Your task to perform on an android device: Go to Yahoo.com Image 0: 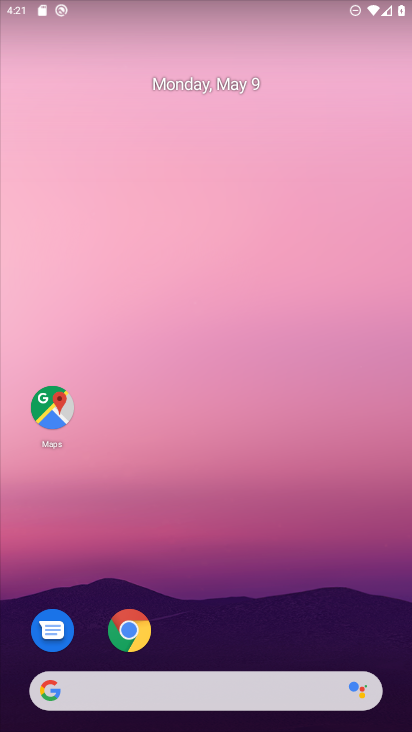
Step 0: drag from (233, 720) to (193, 216)
Your task to perform on an android device: Go to Yahoo.com Image 1: 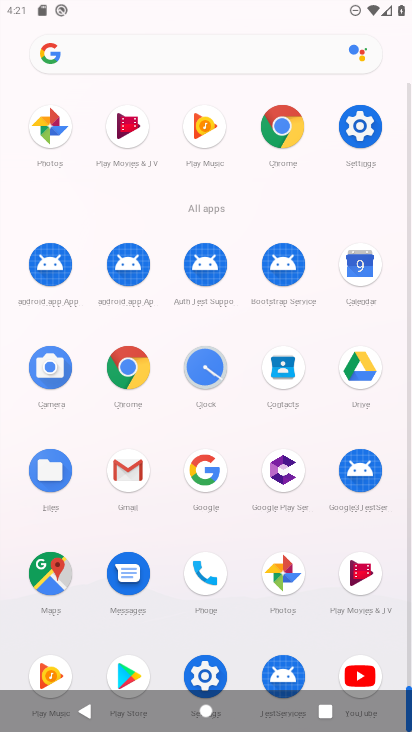
Step 1: drag from (254, 459) to (221, 177)
Your task to perform on an android device: Go to Yahoo.com Image 2: 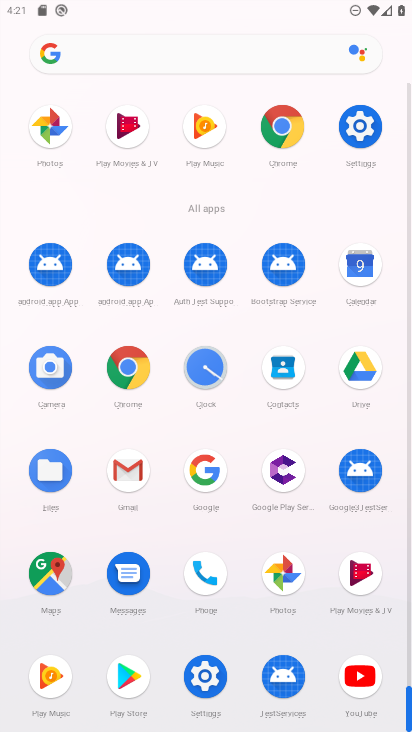
Step 2: click (283, 115)
Your task to perform on an android device: Go to Yahoo.com Image 3: 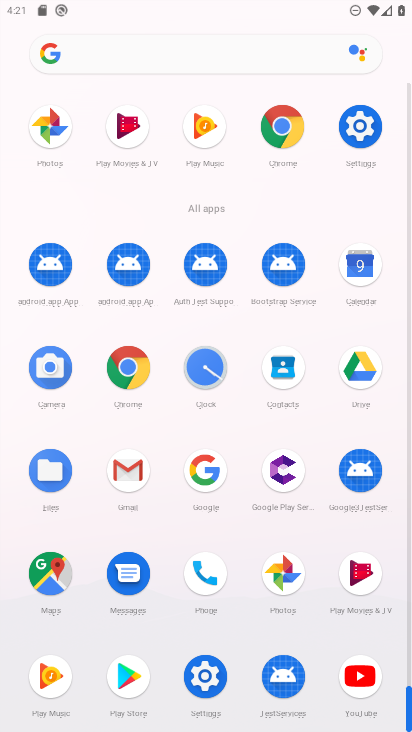
Step 3: click (283, 115)
Your task to perform on an android device: Go to Yahoo.com Image 4: 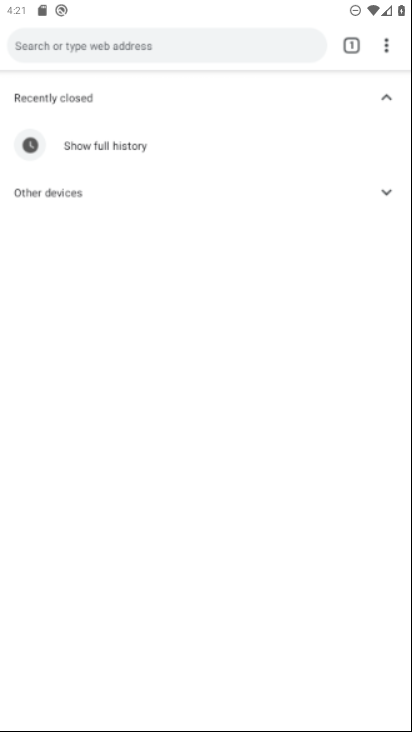
Step 4: click (282, 136)
Your task to perform on an android device: Go to Yahoo.com Image 5: 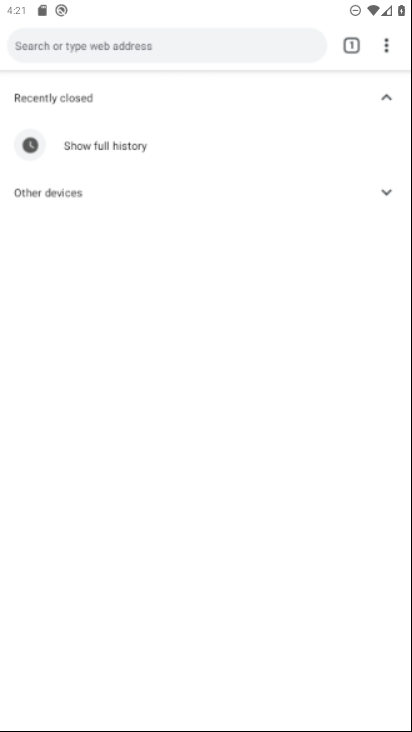
Step 5: click (282, 136)
Your task to perform on an android device: Go to Yahoo.com Image 6: 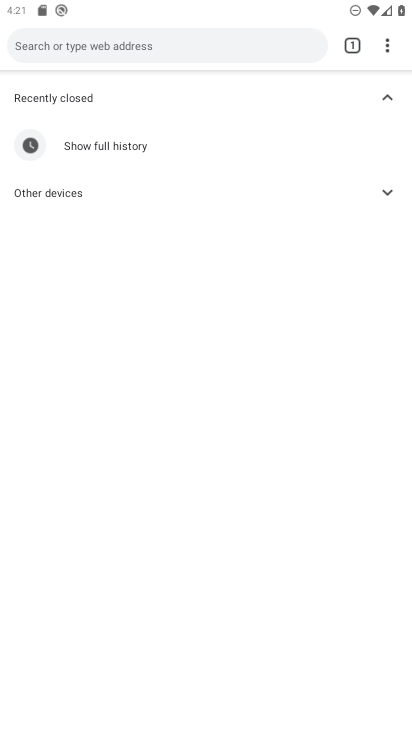
Step 6: press back button
Your task to perform on an android device: Go to Yahoo.com Image 7: 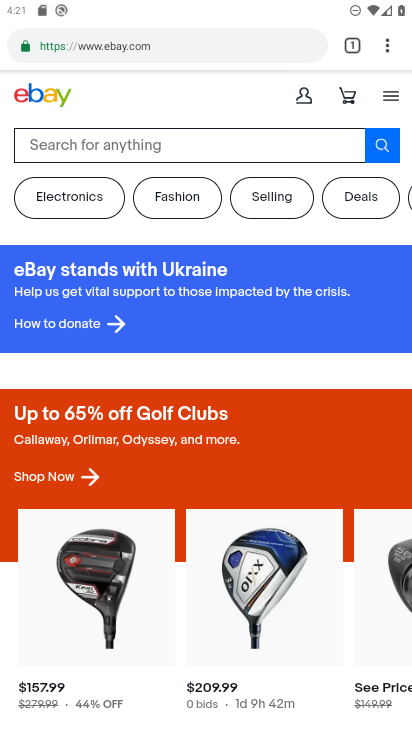
Step 7: drag from (386, 43) to (227, 91)
Your task to perform on an android device: Go to Yahoo.com Image 8: 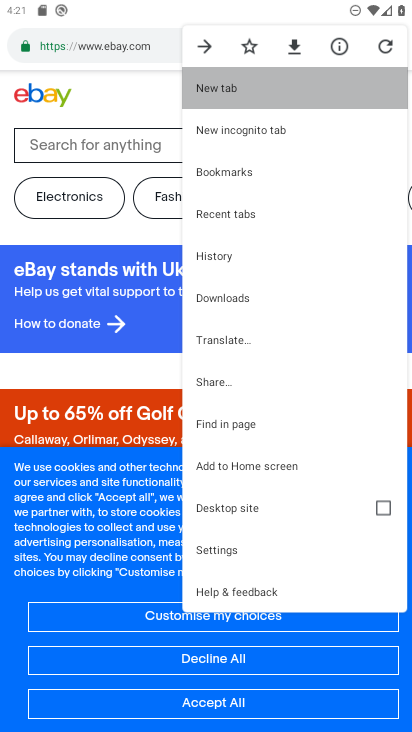
Step 8: click (227, 91)
Your task to perform on an android device: Go to Yahoo.com Image 9: 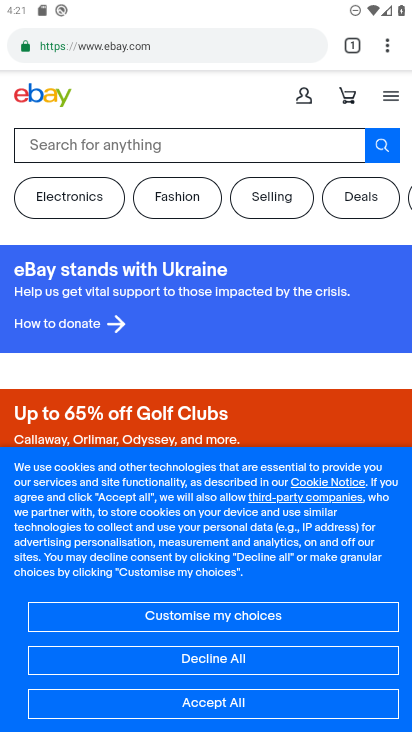
Step 9: click (227, 91)
Your task to perform on an android device: Go to Yahoo.com Image 10: 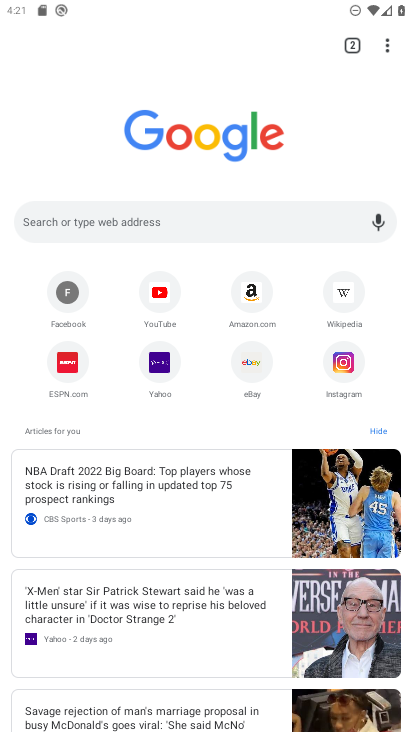
Step 10: click (162, 373)
Your task to perform on an android device: Go to Yahoo.com Image 11: 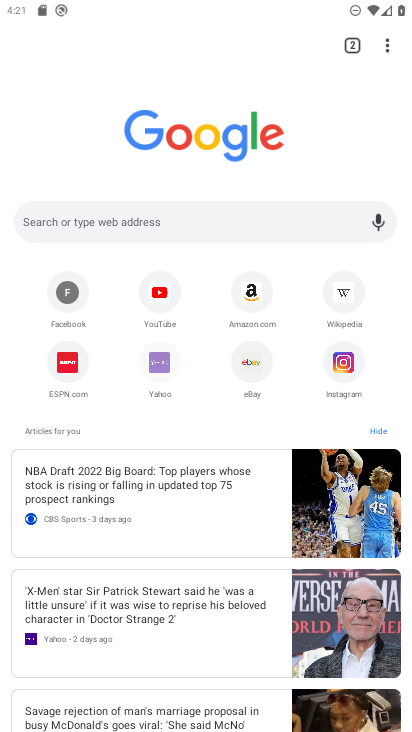
Step 11: click (162, 373)
Your task to perform on an android device: Go to Yahoo.com Image 12: 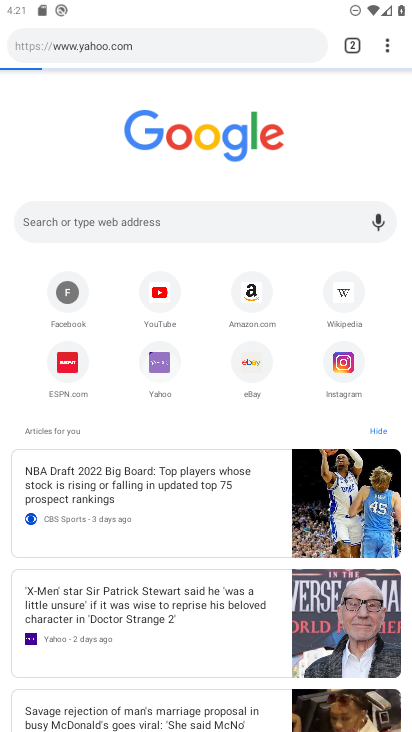
Step 12: click (162, 372)
Your task to perform on an android device: Go to Yahoo.com Image 13: 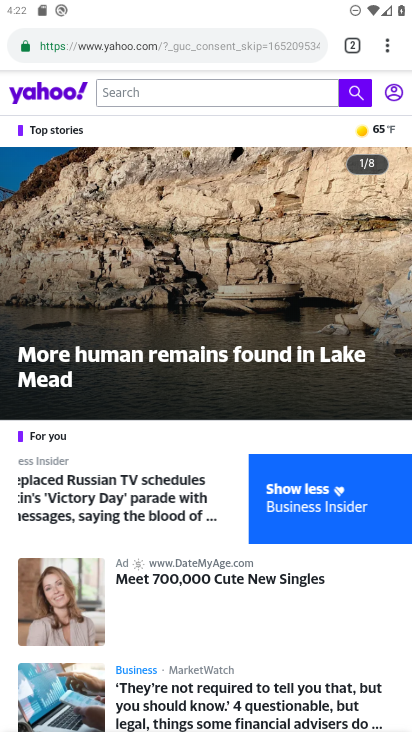
Step 13: task complete